Your task to perform on an android device: Install the ESPN app Image 0: 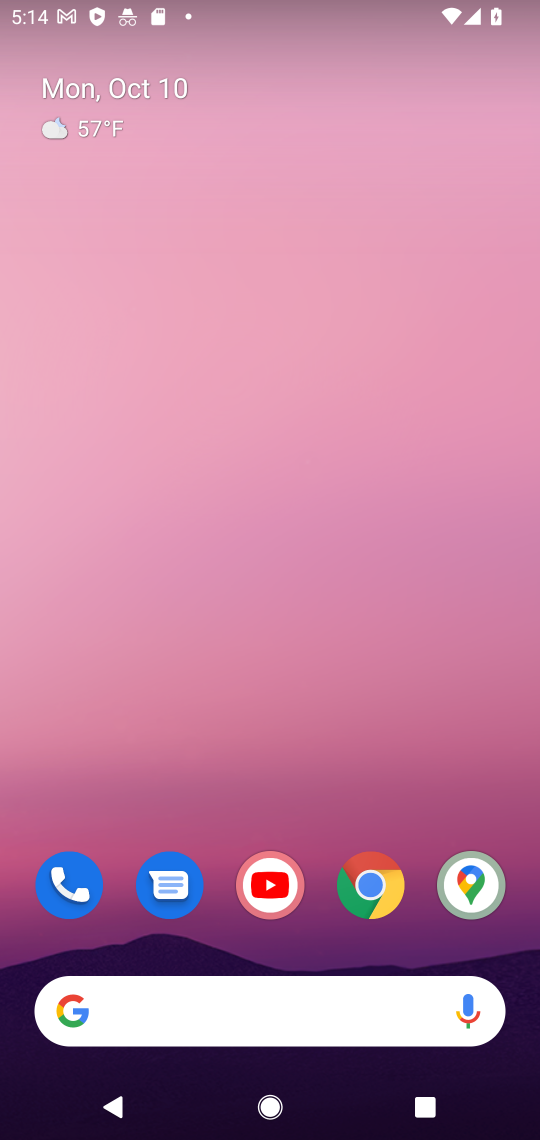
Step 0: drag from (322, 942) to (257, 87)
Your task to perform on an android device: Install the ESPN app Image 1: 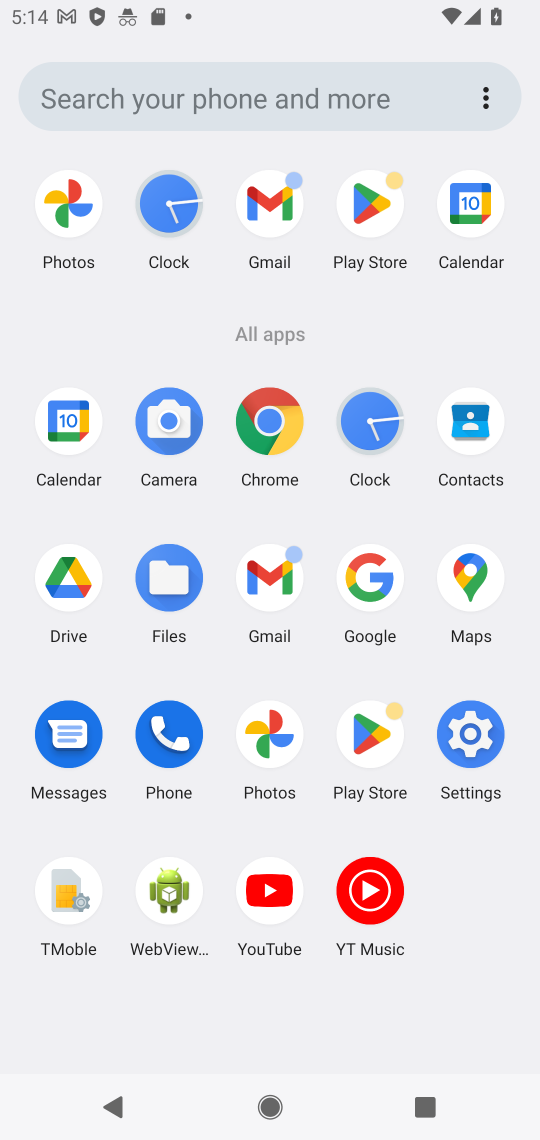
Step 1: click (373, 216)
Your task to perform on an android device: Install the ESPN app Image 2: 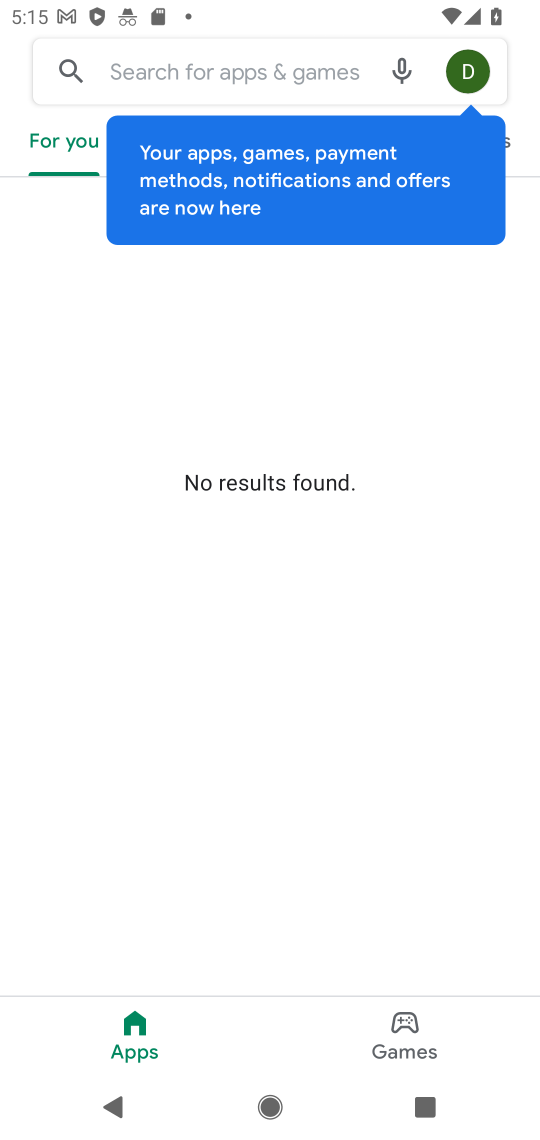
Step 2: click (133, 75)
Your task to perform on an android device: Install the ESPN app Image 3: 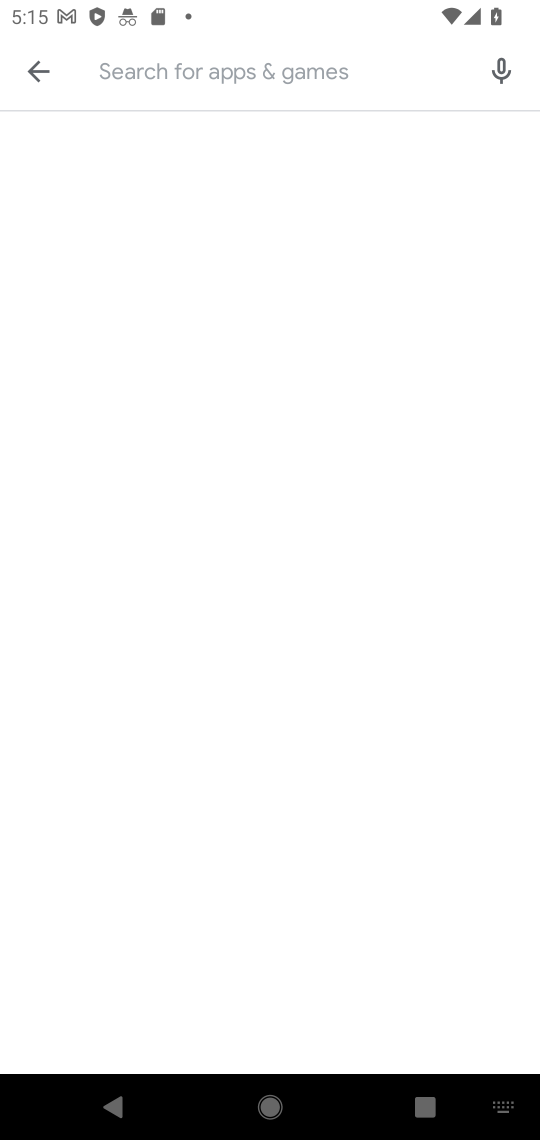
Step 3: type "espn app"
Your task to perform on an android device: Install the ESPN app Image 4: 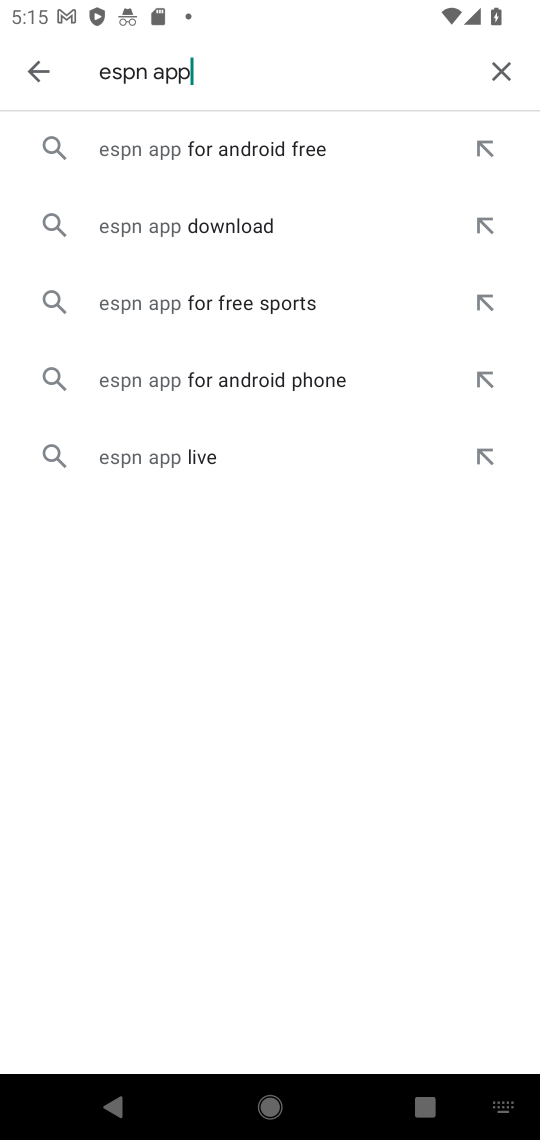
Step 4: click (213, 143)
Your task to perform on an android device: Install the ESPN app Image 5: 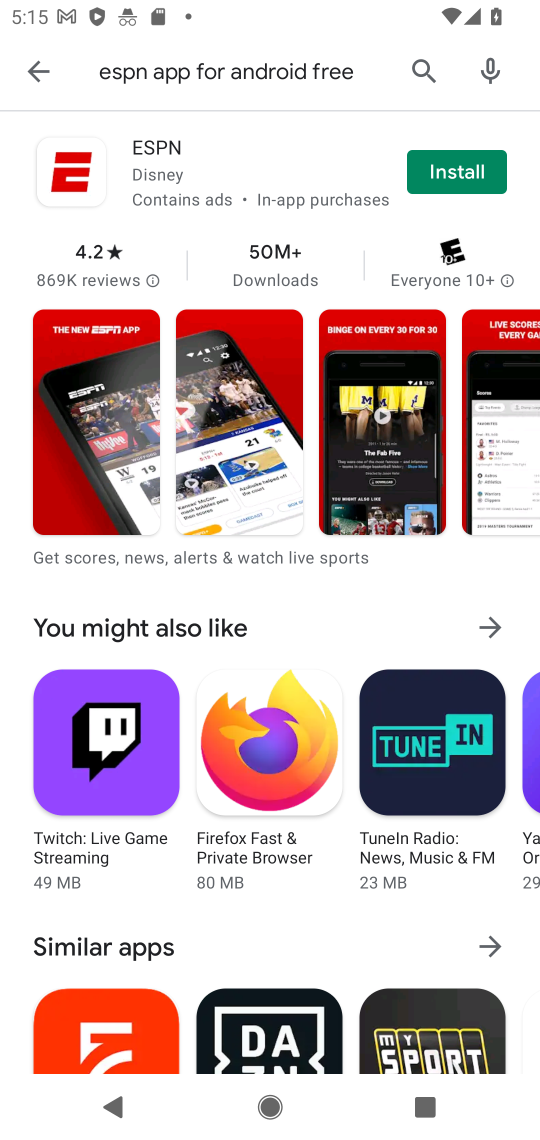
Step 5: click (440, 171)
Your task to perform on an android device: Install the ESPN app Image 6: 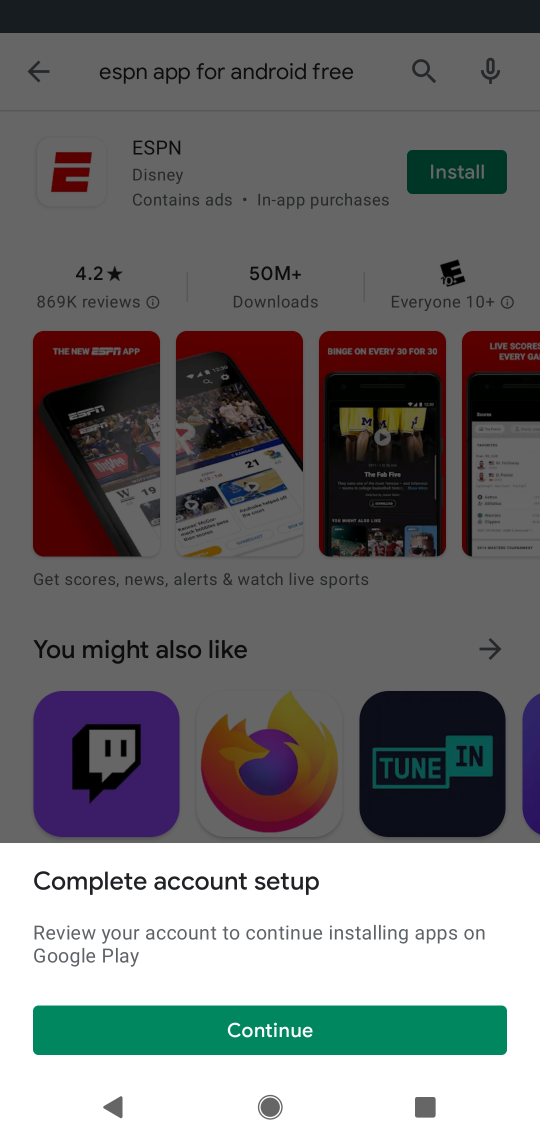
Step 6: click (108, 1032)
Your task to perform on an android device: Install the ESPN app Image 7: 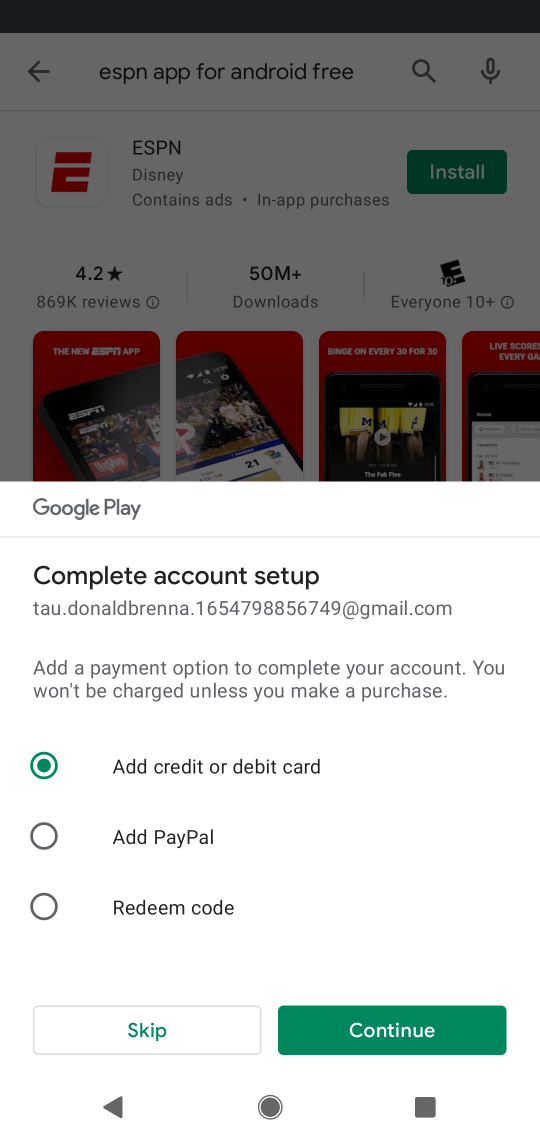
Step 7: click (121, 1032)
Your task to perform on an android device: Install the ESPN app Image 8: 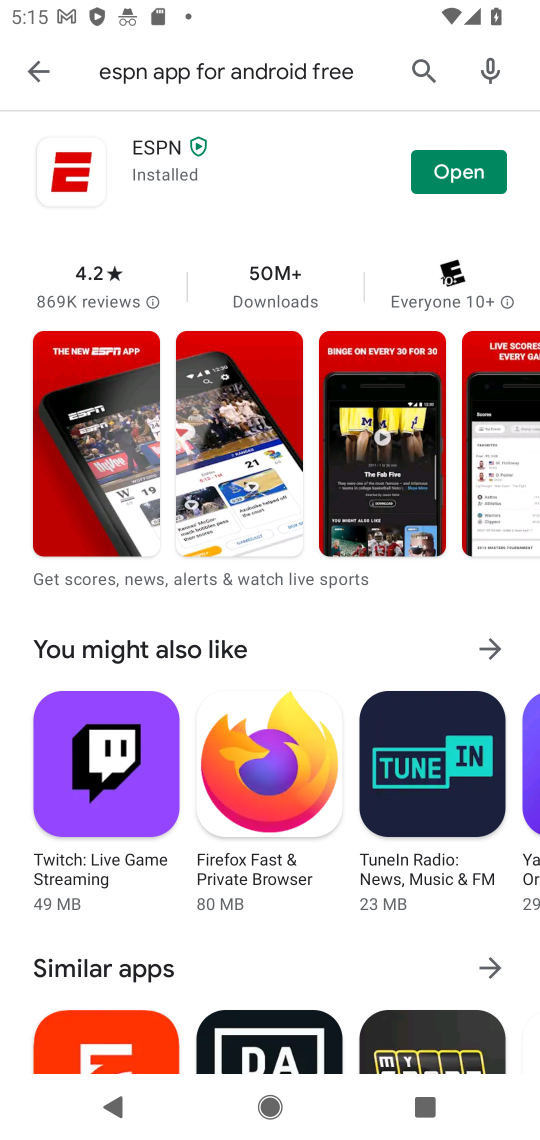
Step 8: task complete